Your task to perform on an android device: read, delete, or share a saved page in the chrome app Image 0: 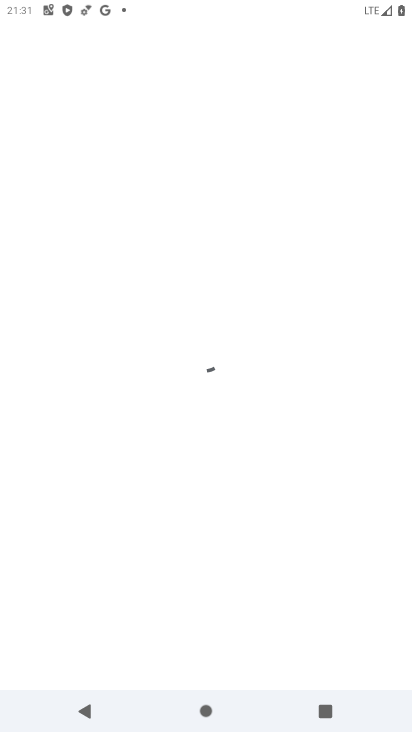
Step 0: drag from (207, 650) to (268, 109)
Your task to perform on an android device: read, delete, or share a saved page in the chrome app Image 1: 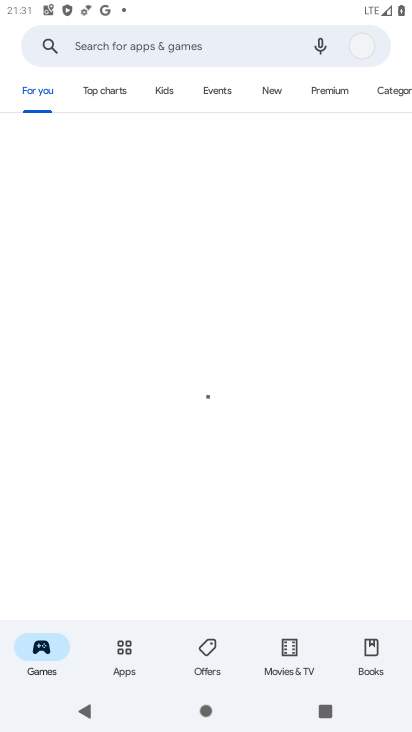
Step 1: press home button
Your task to perform on an android device: read, delete, or share a saved page in the chrome app Image 2: 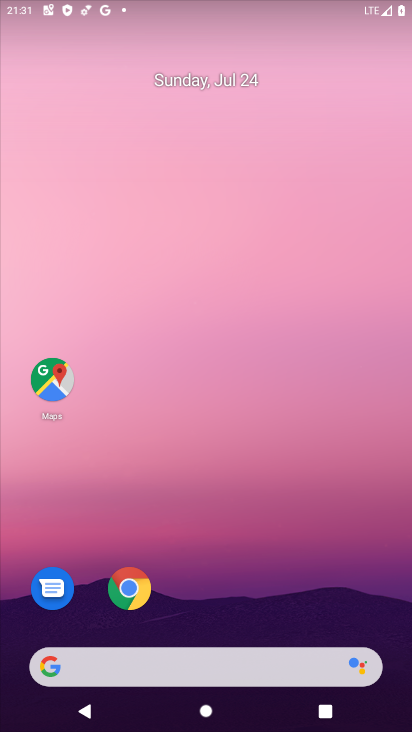
Step 2: drag from (173, 646) to (204, 173)
Your task to perform on an android device: read, delete, or share a saved page in the chrome app Image 3: 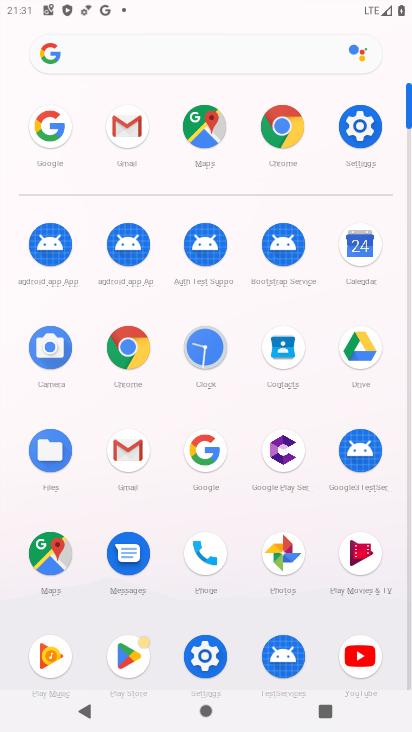
Step 3: click (129, 372)
Your task to perform on an android device: read, delete, or share a saved page in the chrome app Image 4: 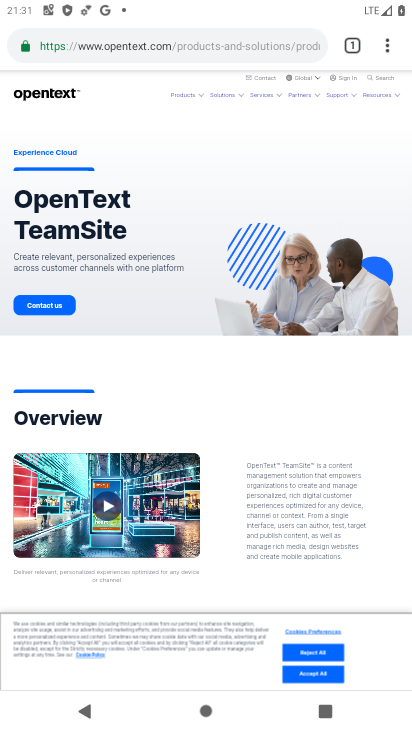
Step 4: drag from (387, 52) to (213, 307)
Your task to perform on an android device: read, delete, or share a saved page in the chrome app Image 5: 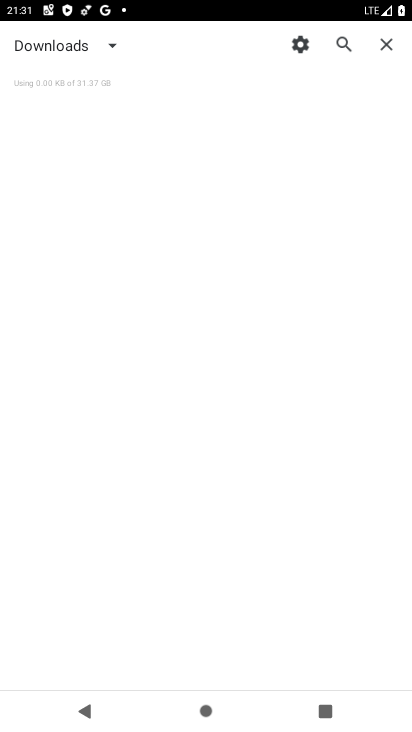
Step 5: click (104, 47)
Your task to perform on an android device: read, delete, or share a saved page in the chrome app Image 6: 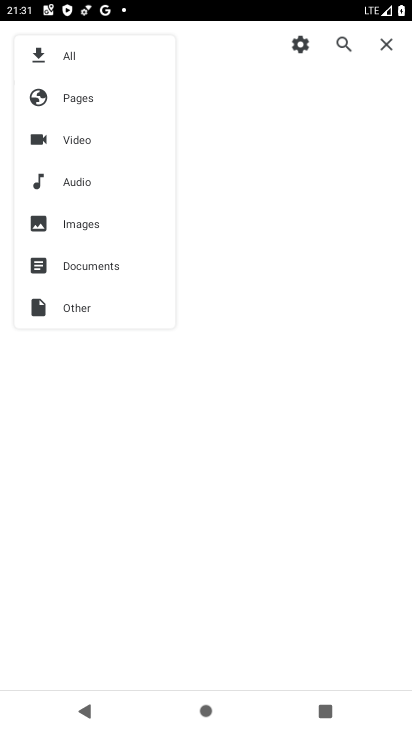
Step 6: click (76, 102)
Your task to perform on an android device: read, delete, or share a saved page in the chrome app Image 7: 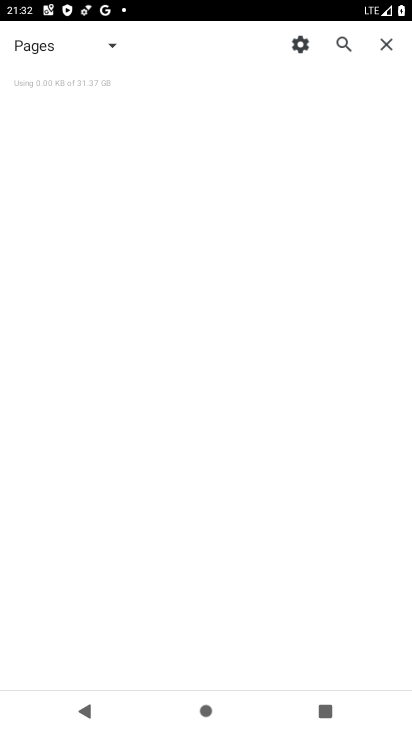
Step 7: task complete